Your task to perform on an android device: Open ESPN.com Image 0: 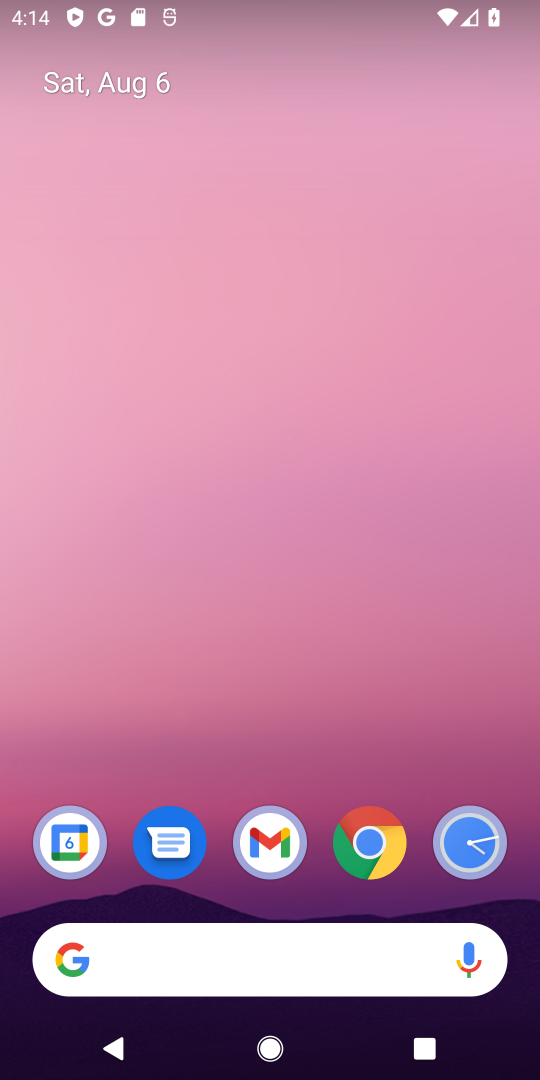
Step 0: click (362, 849)
Your task to perform on an android device: Open ESPN.com Image 1: 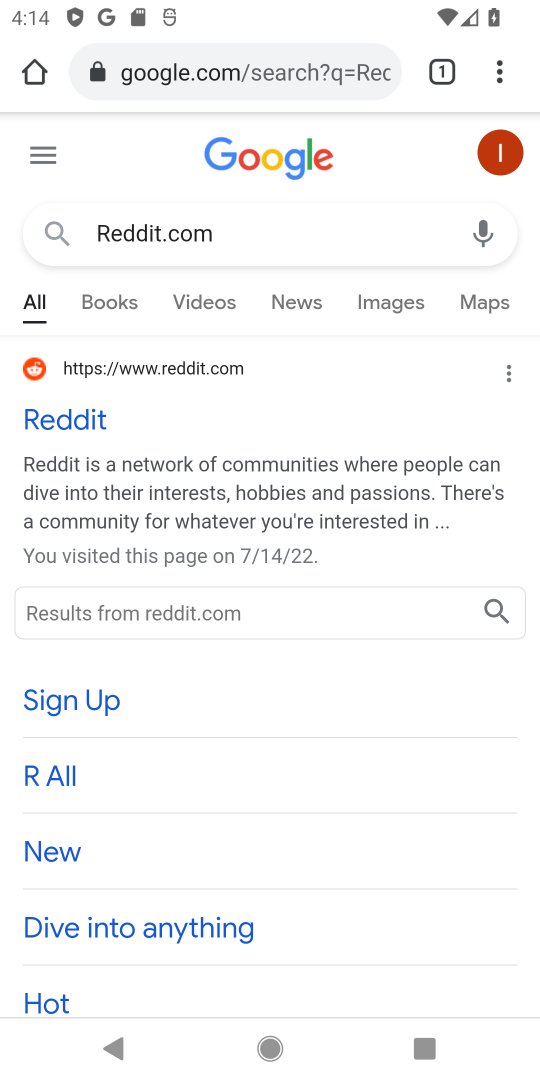
Step 1: task complete